Your task to perform on an android device: Is it going to rain this weekend? Image 0: 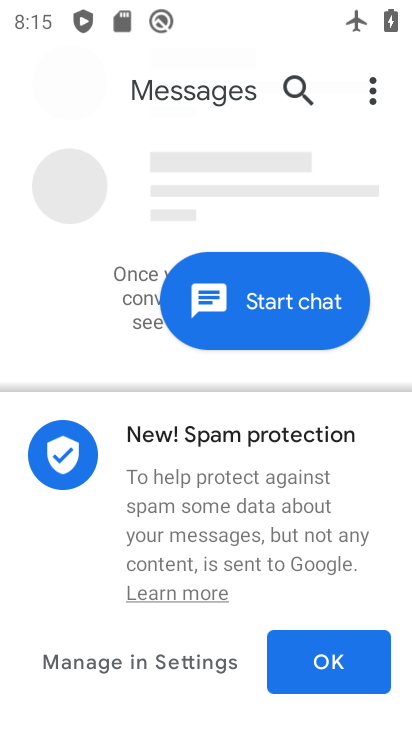
Step 0: press home button
Your task to perform on an android device: Is it going to rain this weekend? Image 1: 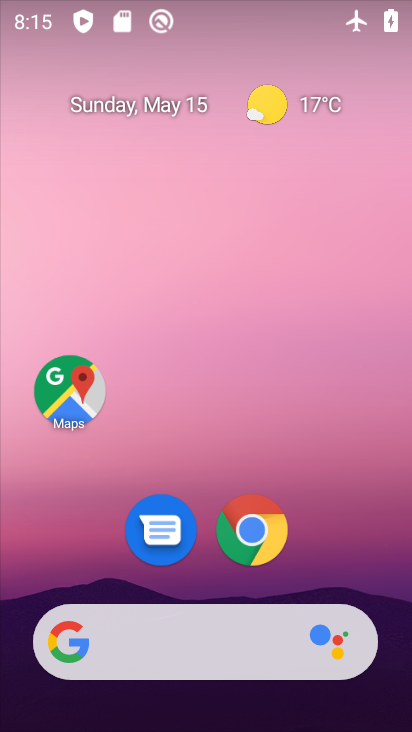
Step 1: click (259, 102)
Your task to perform on an android device: Is it going to rain this weekend? Image 2: 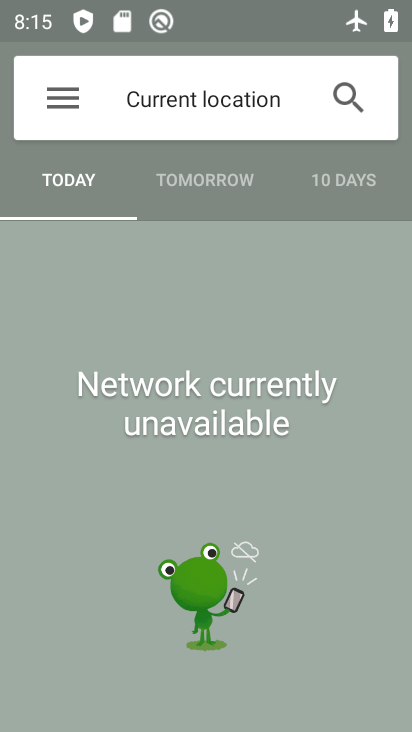
Step 2: click (352, 174)
Your task to perform on an android device: Is it going to rain this weekend? Image 3: 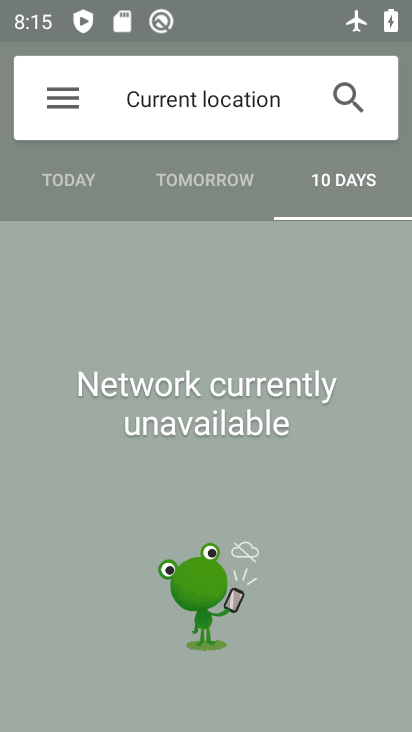
Step 3: task complete